Your task to perform on an android device: turn on translation in the chrome app Image 0: 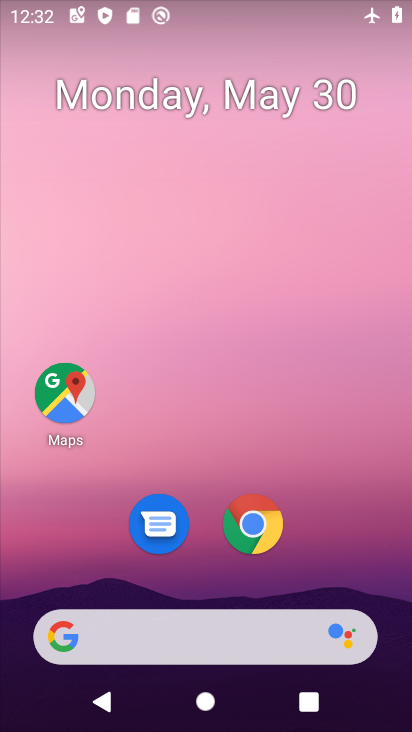
Step 0: click (263, 513)
Your task to perform on an android device: turn on translation in the chrome app Image 1: 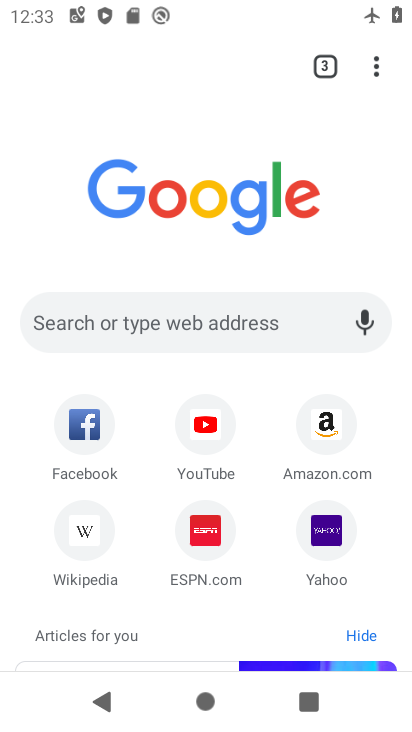
Step 1: click (368, 73)
Your task to perform on an android device: turn on translation in the chrome app Image 2: 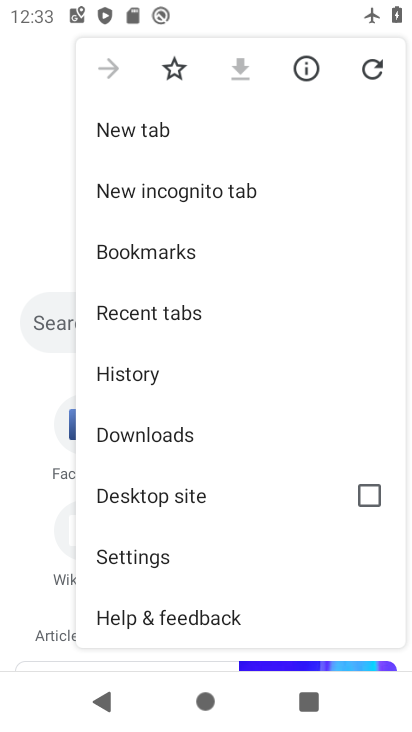
Step 2: click (140, 556)
Your task to perform on an android device: turn on translation in the chrome app Image 3: 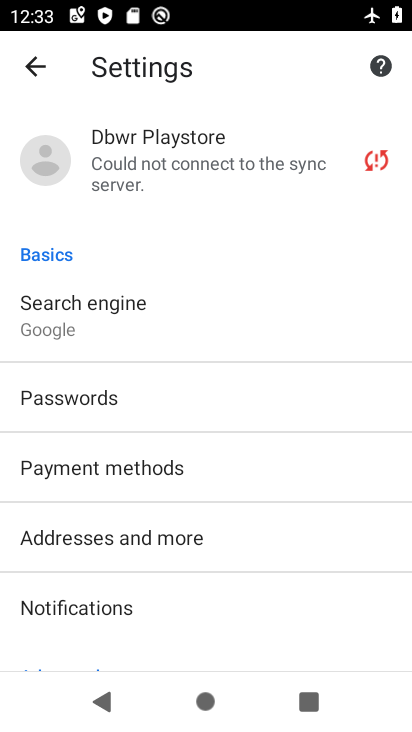
Step 3: drag from (277, 422) to (265, 143)
Your task to perform on an android device: turn on translation in the chrome app Image 4: 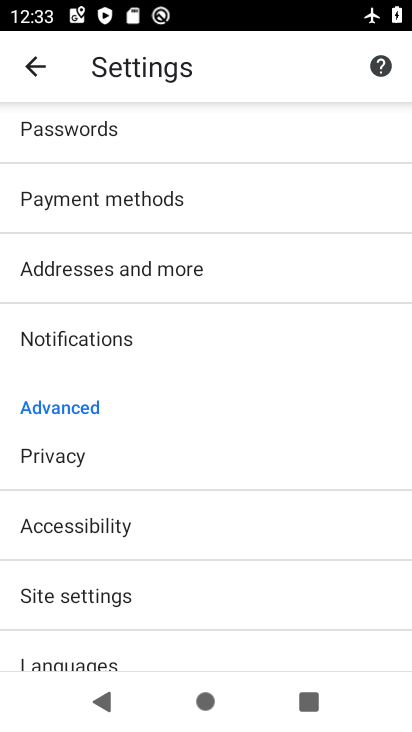
Step 4: drag from (218, 586) to (182, 394)
Your task to perform on an android device: turn on translation in the chrome app Image 5: 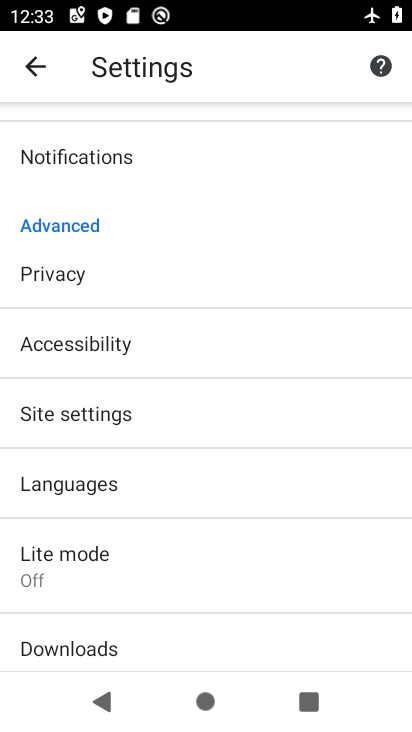
Step 5: click (156, 489)
Your task to perform on an android device: turn on translation in the chrome app Image 6: 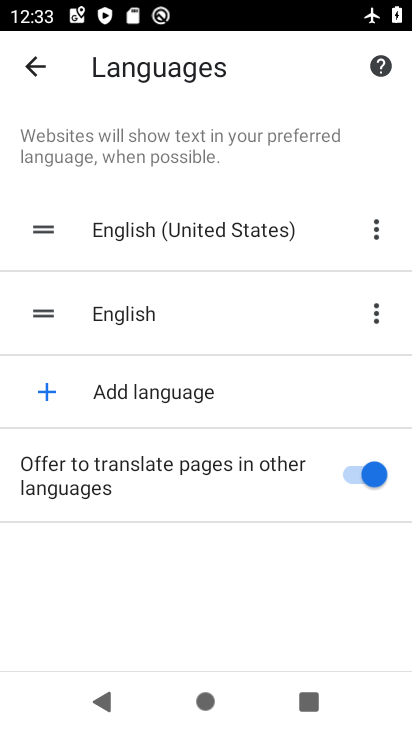
Step 6: task complete